Your task to perform on an android device: Open sound settings Image 0: 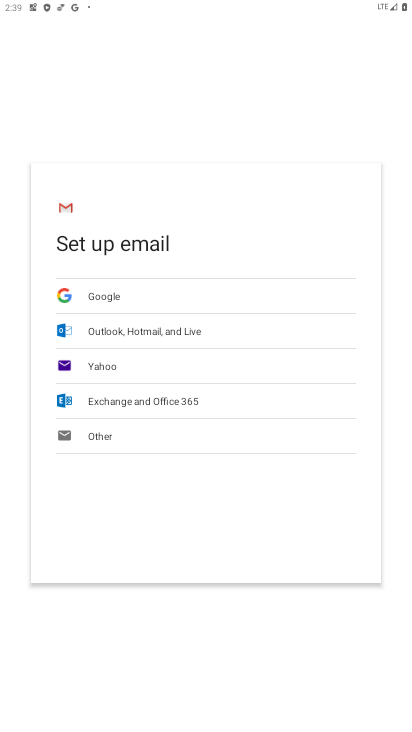
Step 0: press home button
Your task to perform on an android device: Open sound settings Image 1: 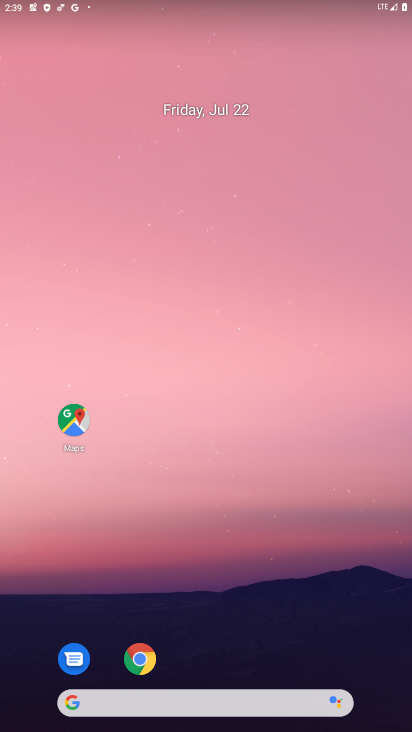
Step 1: drag from (173, 497) to (130, 19)
Your task to perform on an android device: Open sound settings Image 2: 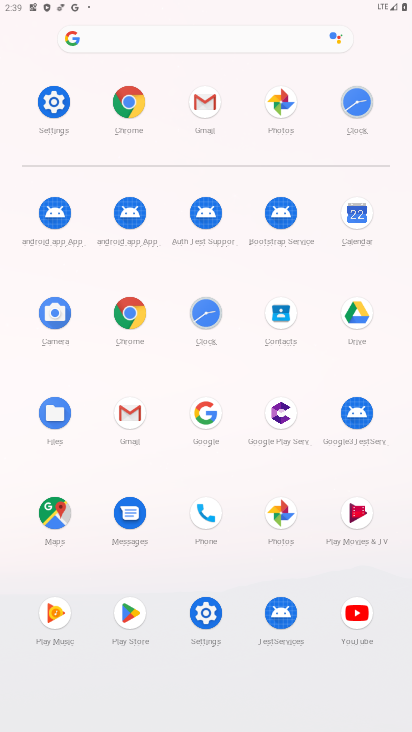
Step 2: click (59, 95)
Your task to perform on an android device: Open sound settings Image 3: 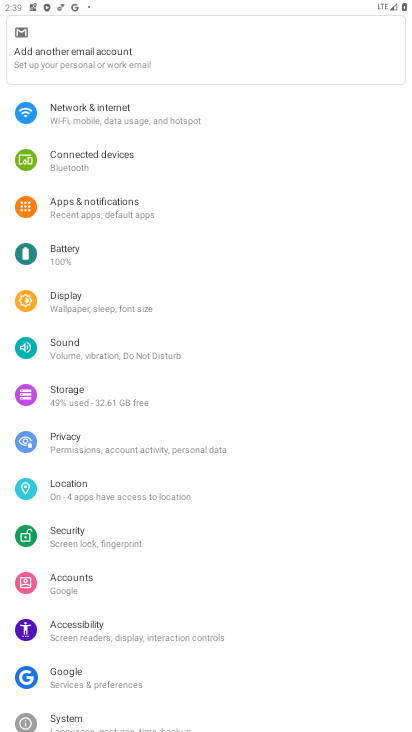
Step 3: click (64, 341)
Your task to perform on an android device: Open sound settings Image 4: 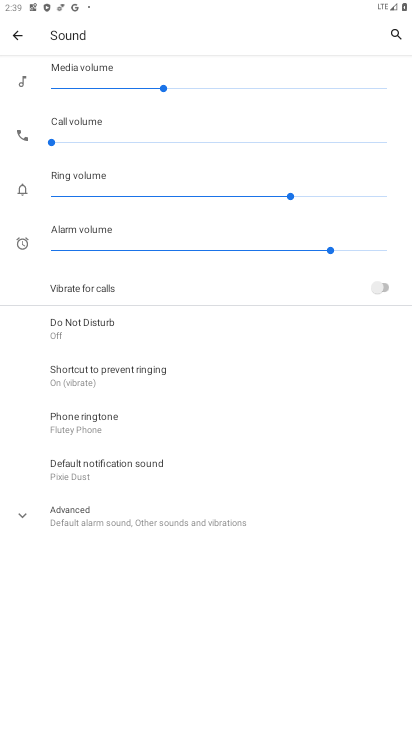
Step 4: task complete